Your task to perform on an android device: When is my next meeting? Image 0: 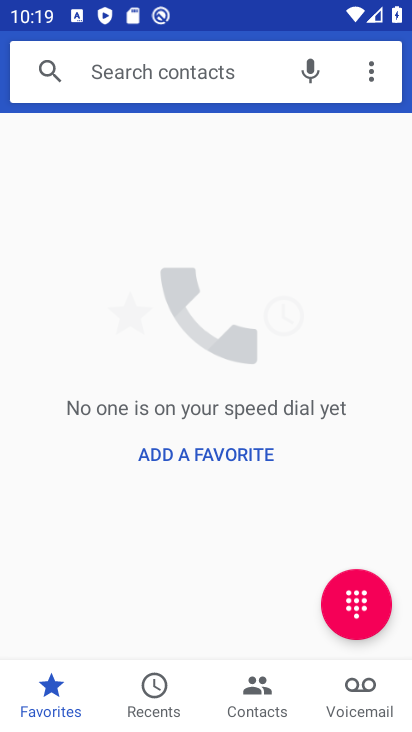
Step 0: press home button
Your task to perform on an android device: When is my next meeting? Image 1: 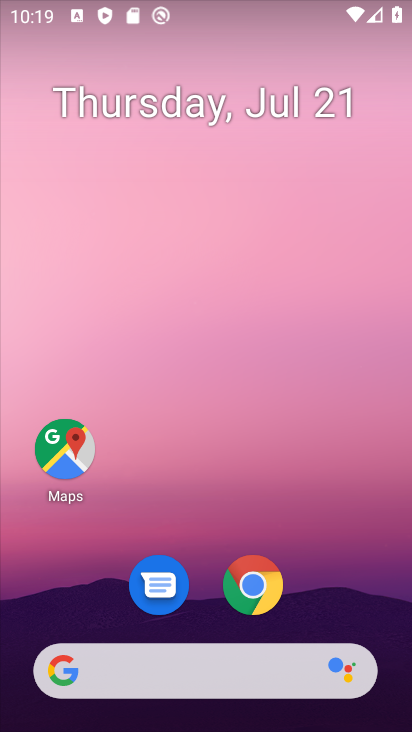
Step 1: drag from (315, 569) to (324, 24)
Your task to perform on an android device: When is my next meeting? Image 2: 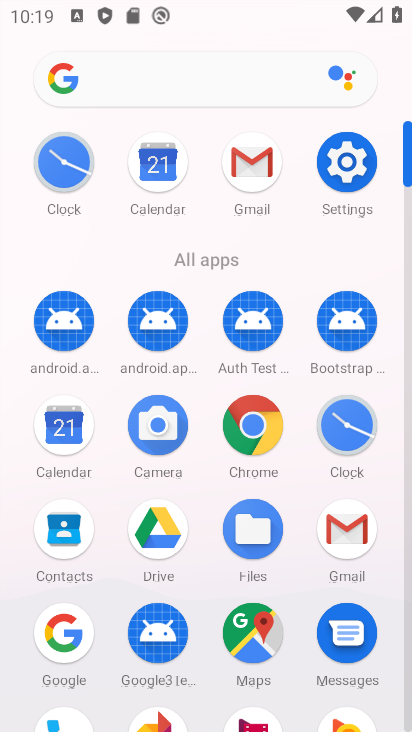
Step 2: click (154, 159)
Your task to perform on an android device: When is my next meeting? Image 3: 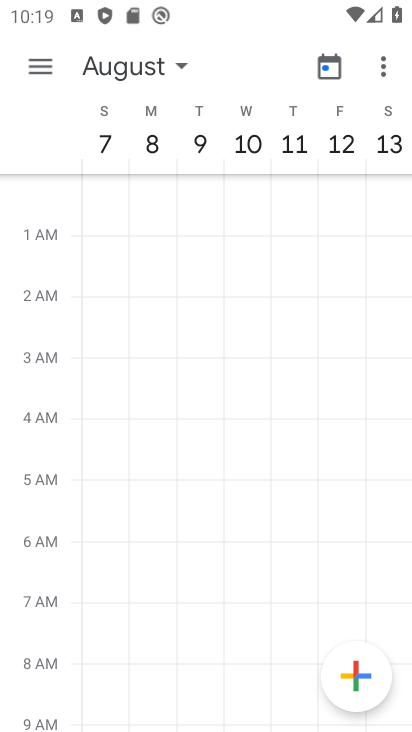
Step 3: drag from (107, 325) to (400, 391)
Your task to perform on an android device: When is my next meeting? Image 4: 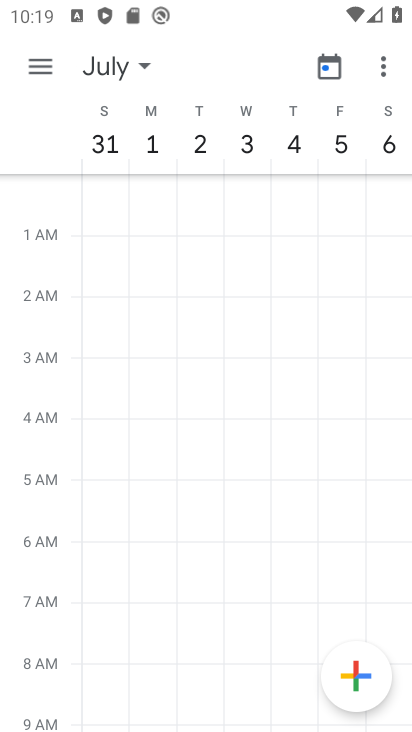
Step 4: drag from (114, 329) to (411, 357)
Your task to perform on an android device: When is my next meeting? Image 5: 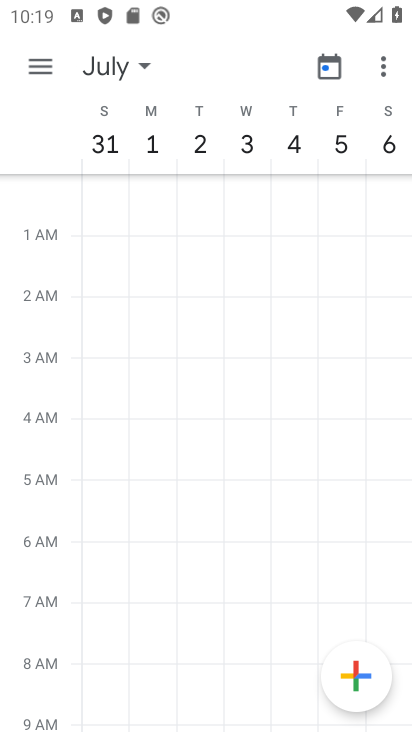
Step 5: drag from (97, 249) to (409, 290)
Your task to perform on an android device: When is my next meeting? Image 6: 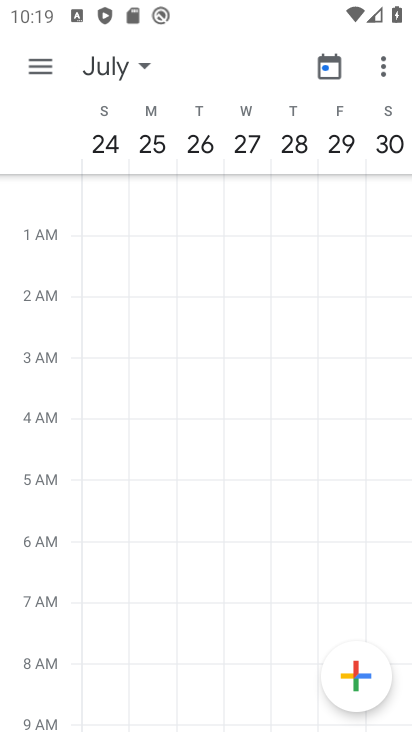
Step 6: drag from (105, 259) to (380, 254)
Your task to perform on an android device: When is my next meeting? Image 7: 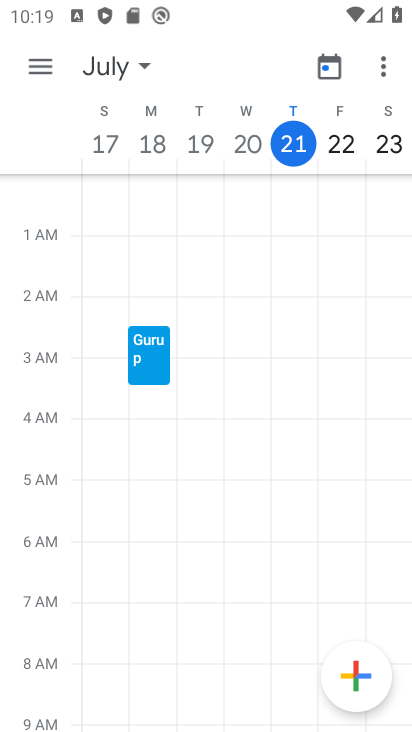
Step 7: click (298, 141)
Your task to perform on an android device: When is my next meeting? Image 8: 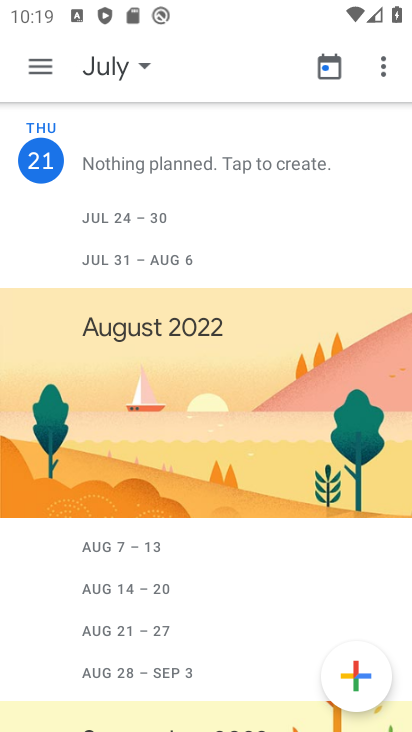
Step 8: task complete